Your task to perform on an android device: What's the weather going to be tomorrow? Image 0: 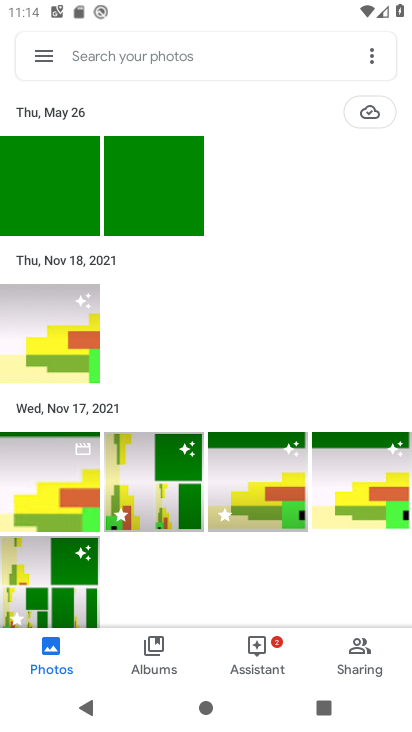
Step 0: press home button
Your task to perform on an android device: What's the weather going to be tomorrow? Image 1: 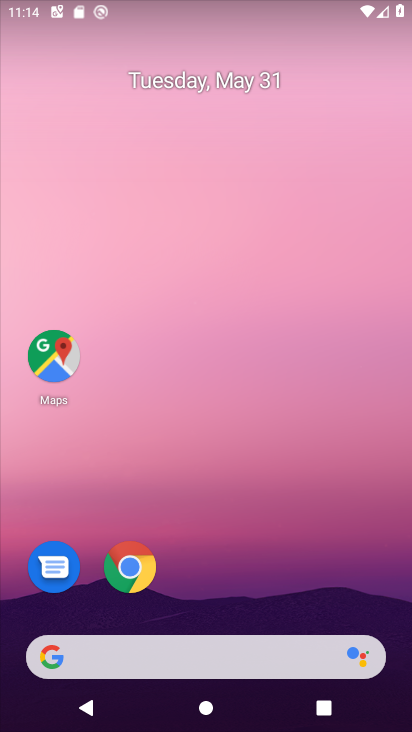
Step 1: click (266, 653)
Your task to perform on an android device: What's the weather going to be tomorrow? Image 2: 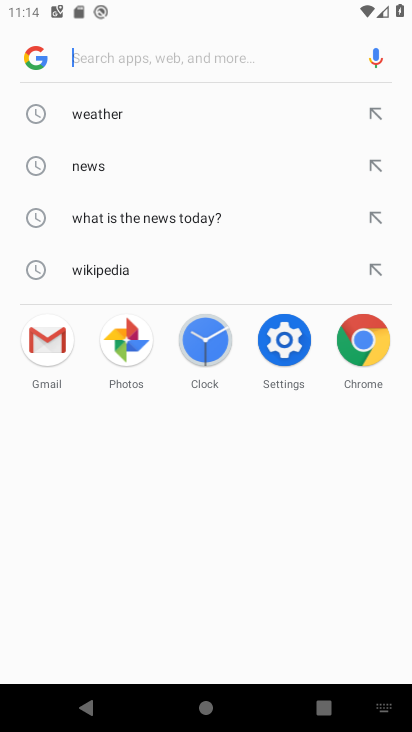
Step 2: click (92, 122)
Your task to perform on an android device: What's the weather going to be tomorrow? Image 3: 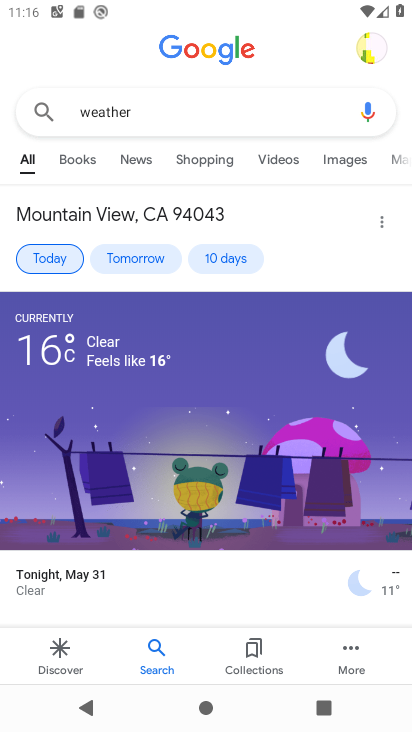
Step 3: click (139, 255)
Your task to perform on an android device: What's the weather going to be tomorrow? Image 4: 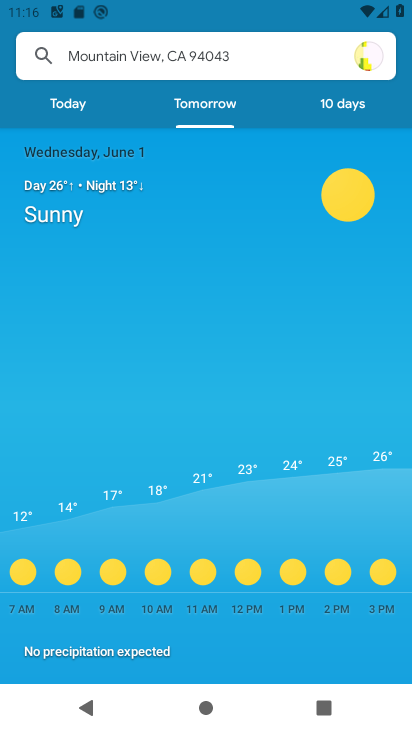
Step 4: task complete